Your task to perform on an android device: open the mobile data screen to see how much data has been used Image 0: 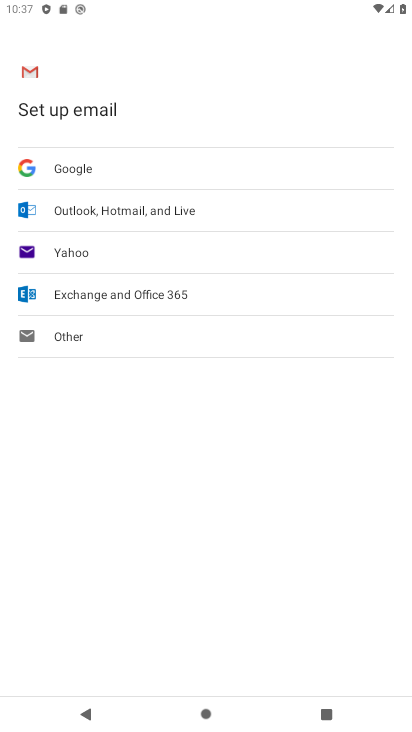
Step 0: press back button
Your task to perform on an android device: open the mobile data screen to see how much data has been used Image 1: 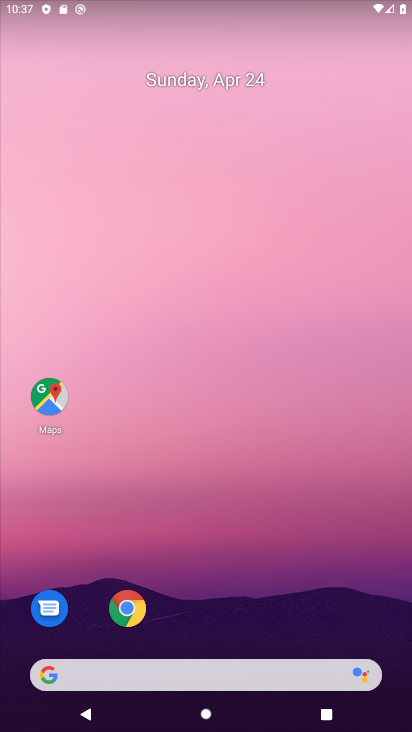
Step 1: drag from (212, 561) to (131, 86)
Your task to perform on an android device: open the mobile data screen to see how much data has been used Image 2: 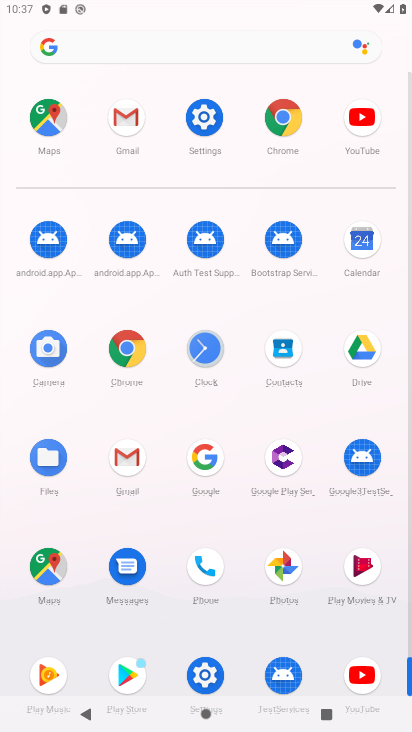
Step 2: click (204, 118)
Your task to perform on an android device: open the mobile data screen to see how much data has been used Image 3: 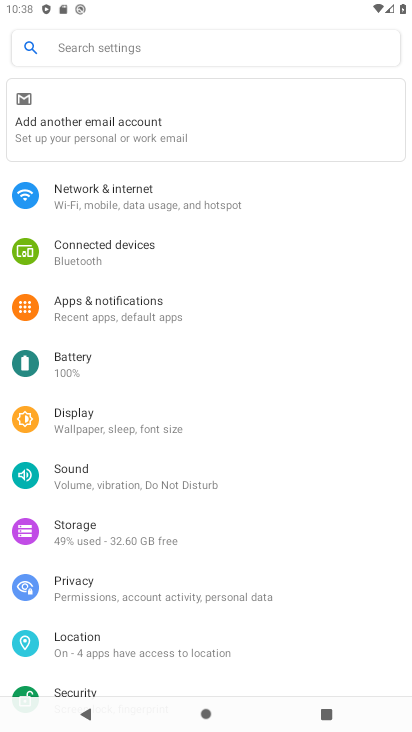
Step 3: click (163, 204)
Your task to perform on an android device: open the mobile data screen to see how much data has been used Image 4: 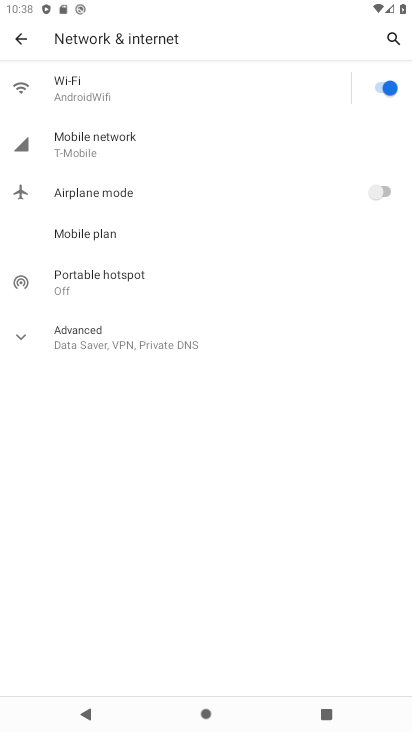
Step 4: click (132, 149)
Your task to perform on an android device: open the mobile data screen to see how much data has been used Image 5: 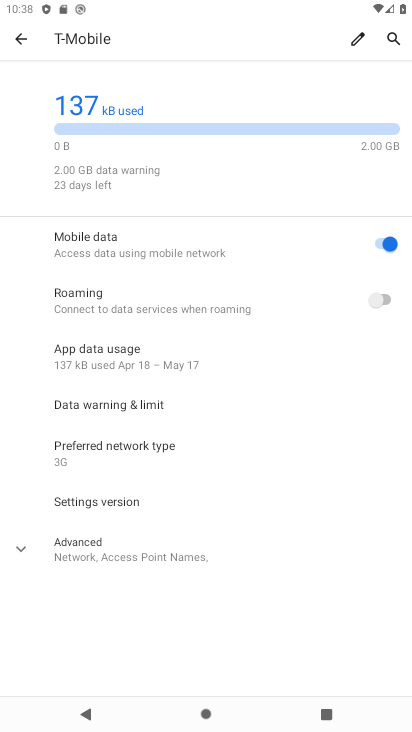
Step 5: task complete